Your task to perform on an android device: set the timer Image 0: 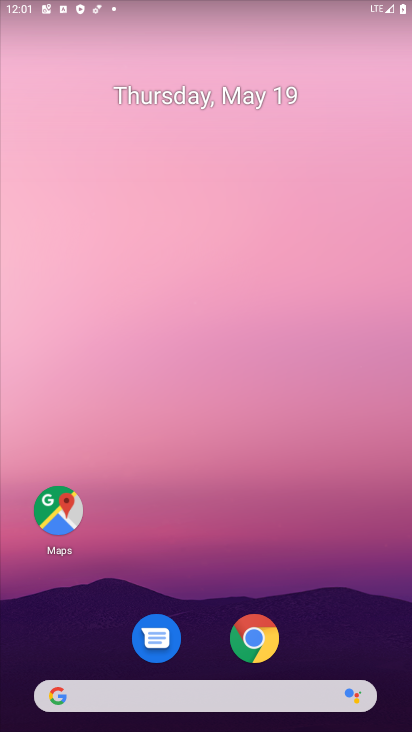
Step 0: drag from (317, 625) to (255, 101)
Your task to perform on an android device: set the timer Image 1: 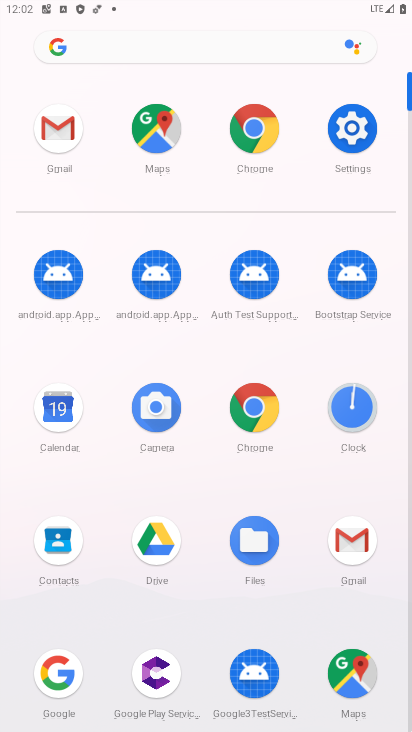
Step 1: click (359, 421)
Your task to perform on an android device: set the timer Image 2: 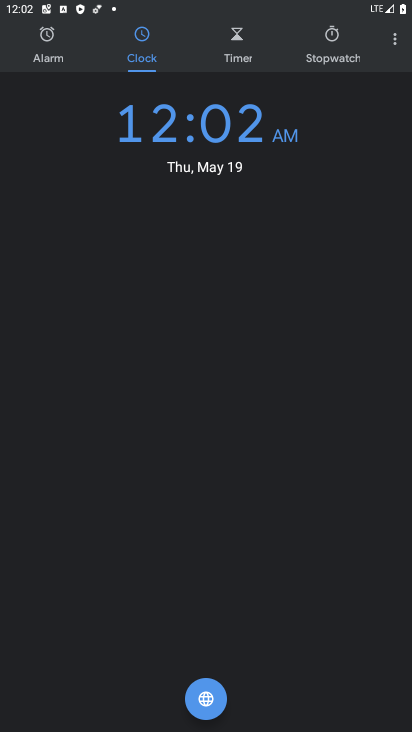
Step 2: click (400, 41)
Your task to perform on an android device: set the timer Image 3: 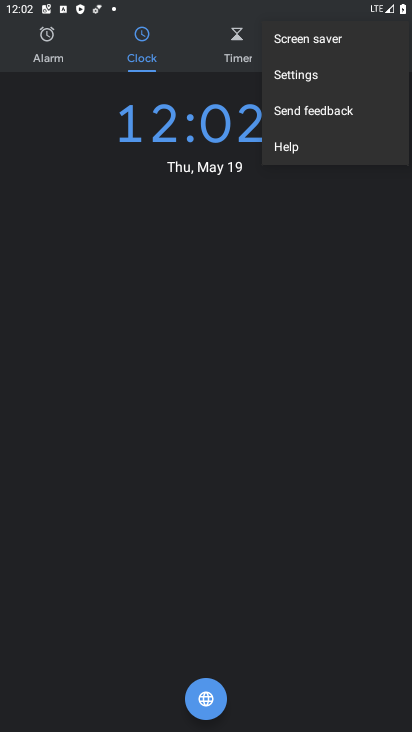
Step 3: click (308, 70)
Your task to perform on an android device: set the timer Image 4: 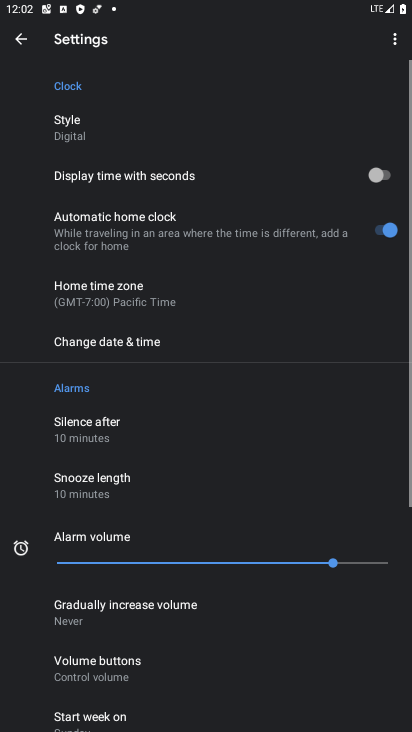
Step 4: click (123, 303)
Your task to perform on an android device: set the timer Image 5: 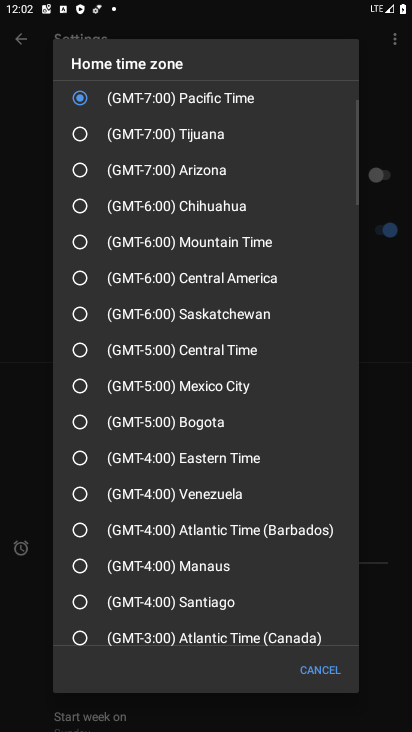
Step 5: click (200, 346)
Your task to perform on an android device: set the timer Image 6: 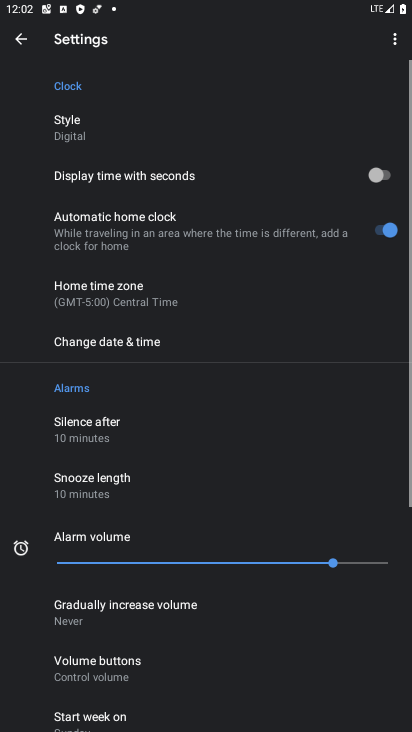
Step 6: task complete